Your task to perform on an android device: Open Reddit.com Image 0: 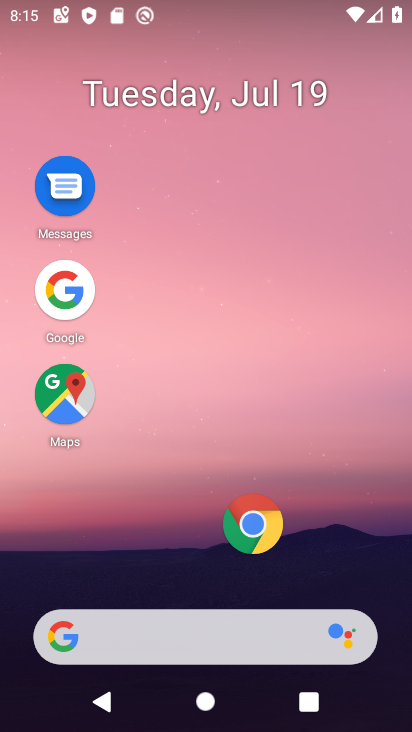
Step 0: click (272, 534)
Your task to perform on an android device: Open Reddit.com Image 1: 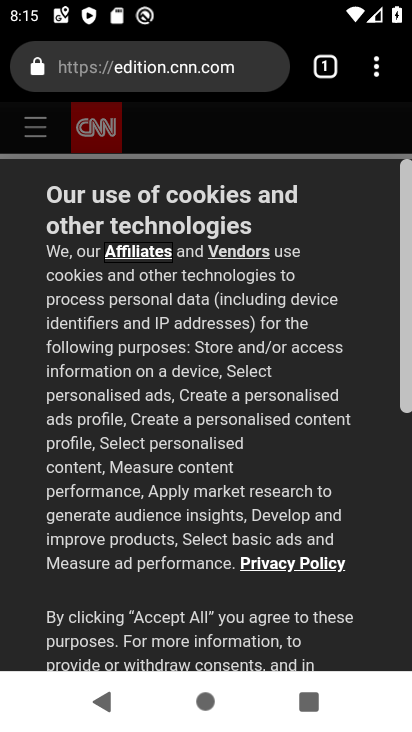
Step 1: click (313, 74)
Your task to perform on an android device: Open Reddit.com Image 2: 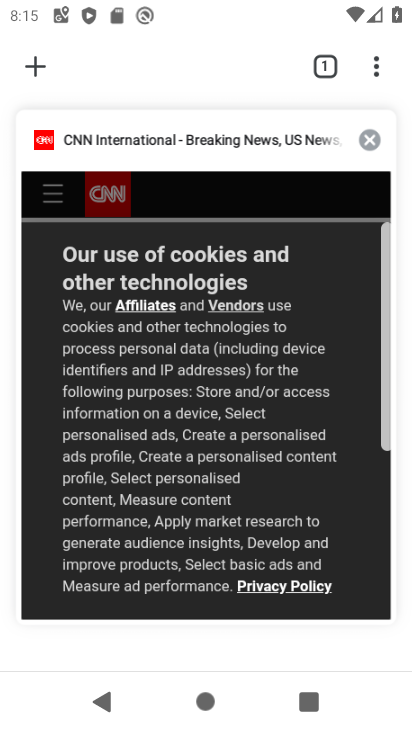
Step 2: click (37, 63)
Your task to perform on an android device: Open Reddit.com Image 3: 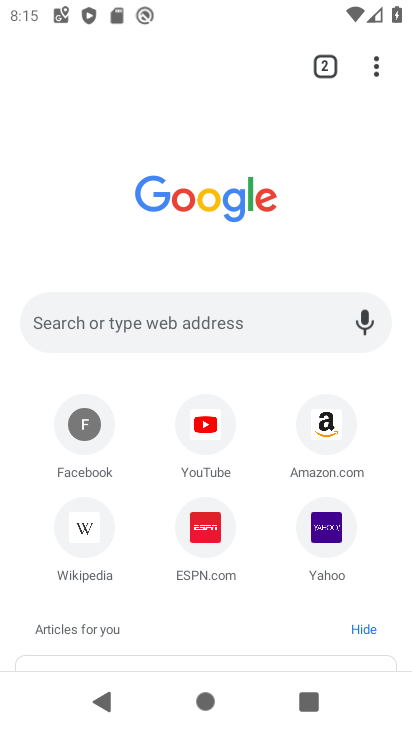
Step 3: click (130, 312)
Your task to perform on an android device: Open Reddit.com Image 4: 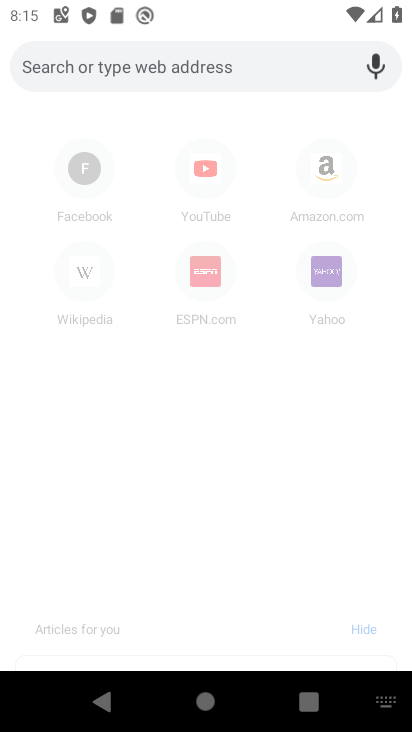
Step 4: type "reddit"
Your task to perform on an android device: Open Reddit.com Image 5: 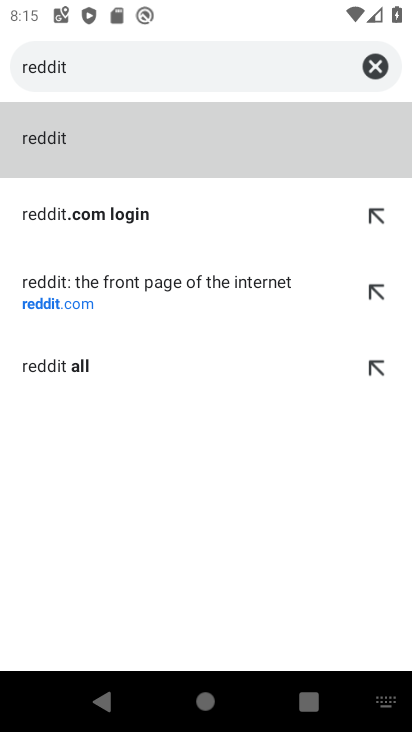
Step 5: click (70, 290)
Your task to perform on an android device: Open Reddit.com Image 6: 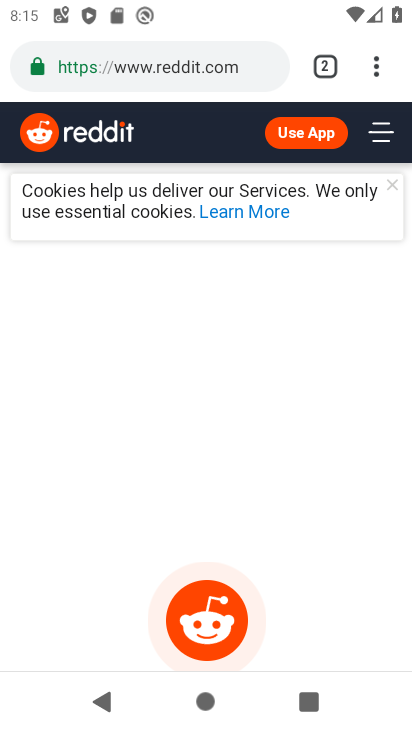
Step 6: task complete